Your task to perform on an android device: Do I have any events tomorrow? Image 0: 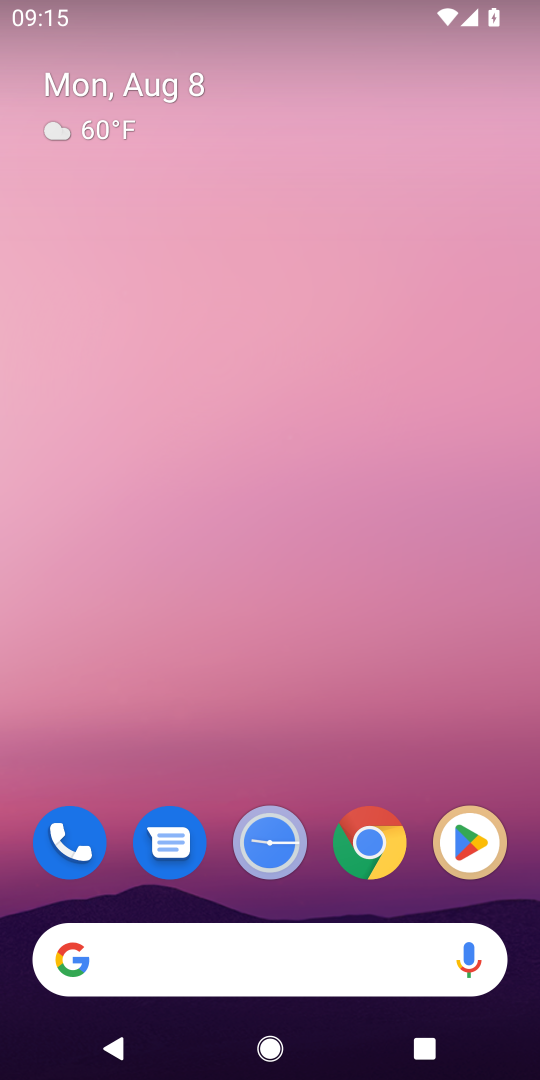
Step 0: drag from (197, 701) to (307, 28)
Your task to perform on an android device: Do I have any events tomorrow? Image 1: 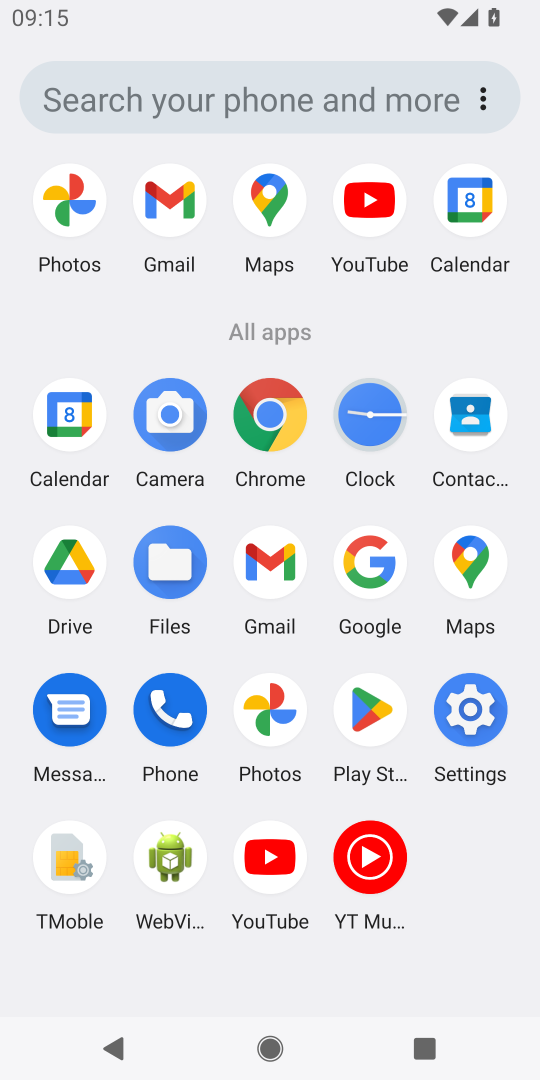
Step 1: click (469, 238)
Your task to perform on an android device: Do I have any events tomorrow? Image 2: 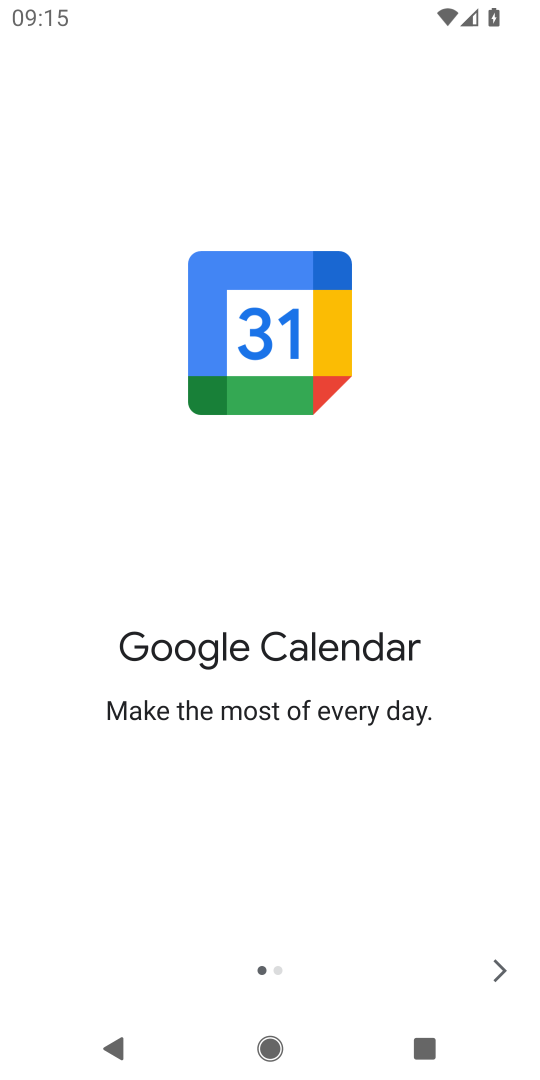
Step 2: click (505, 964)
Your task to perform on an android device: Do I have any events tomorrow? Image 3: 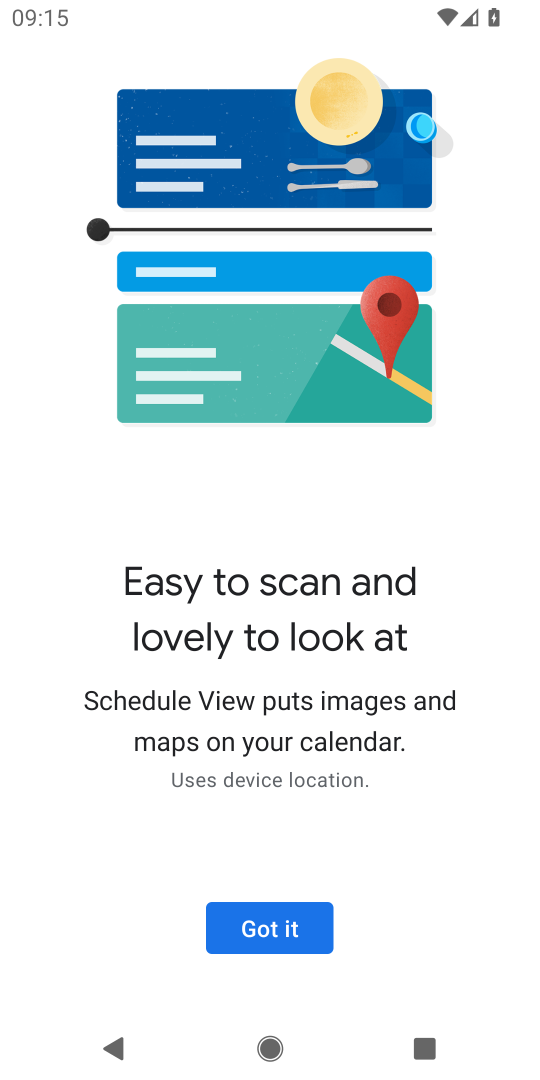
Step 3: click (306, 919)
Your task to perform on an android device: Do I have any events tomorrow? Image 4: 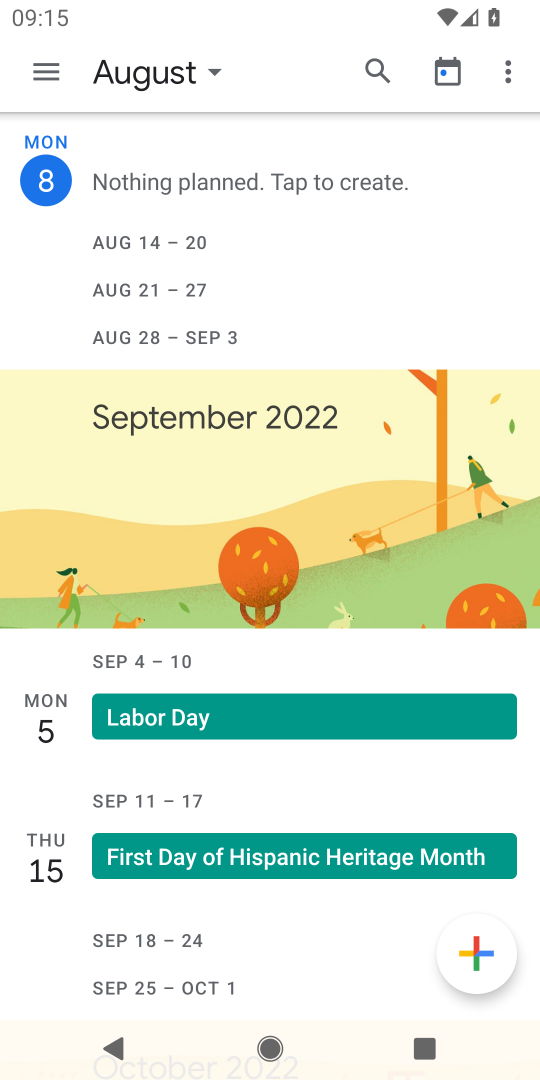
Step 4: click (161, 78)
Your task to perform on an android device: Do I have any events tomorrow? Image 5: 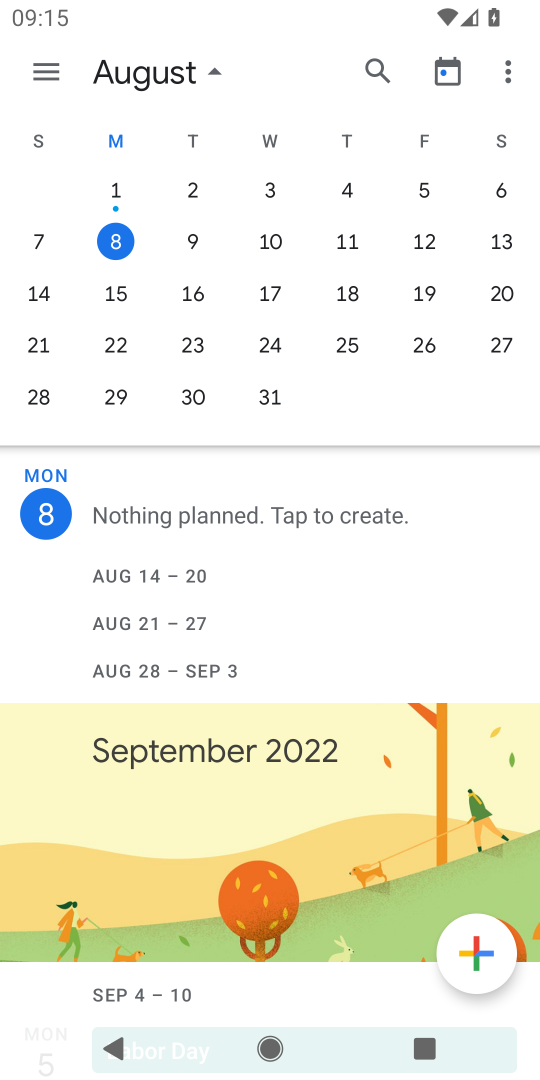
Step 5: click (199, 232)
Your task to perform on an android device: Do I have any events tomorrow? Image 6: 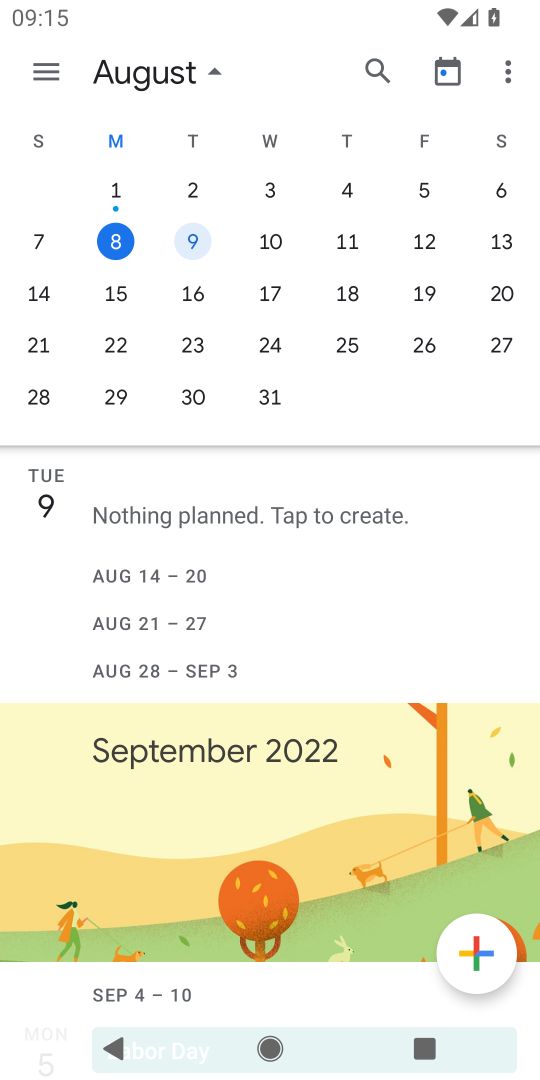
Step 6: task complete